Your task to perform on an android device: See recent photos Image 0: 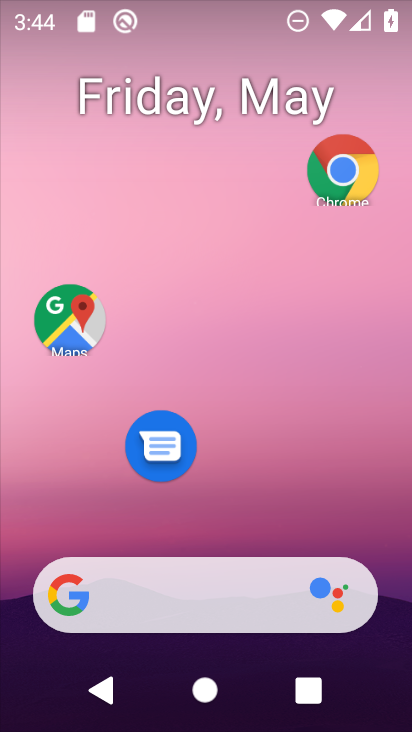
Step 0: click (335, 183)
Your task to perform on an android device: See recent photos Image 1: 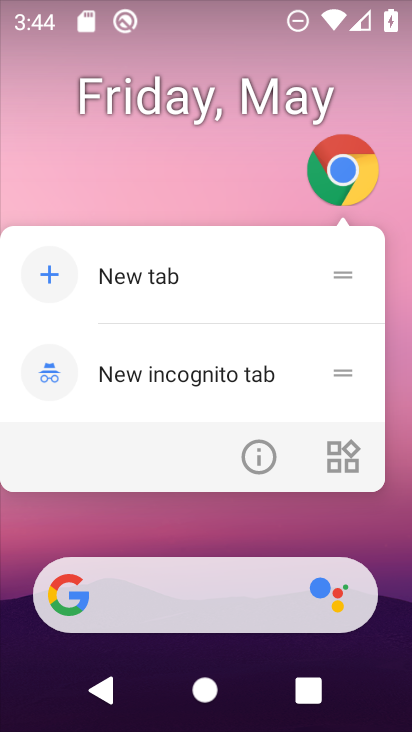
Step 1: click (227, 530)
Your task to perform on an android device: See recent photos Image 2: 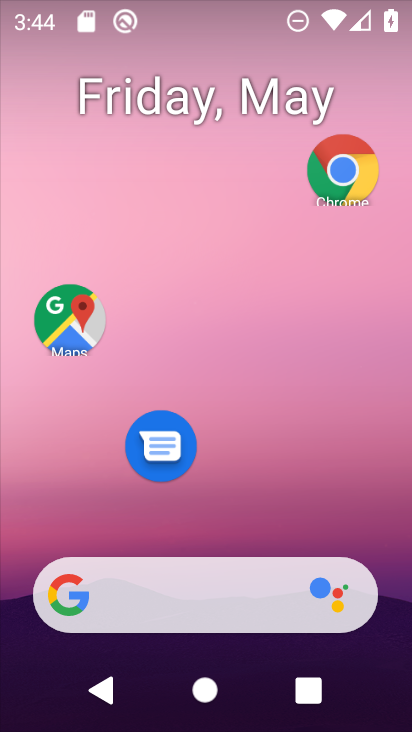
Step 2: drag from (227, 530) to (242, 144)
Your task to perform on an android device: See recent photos Image 3: 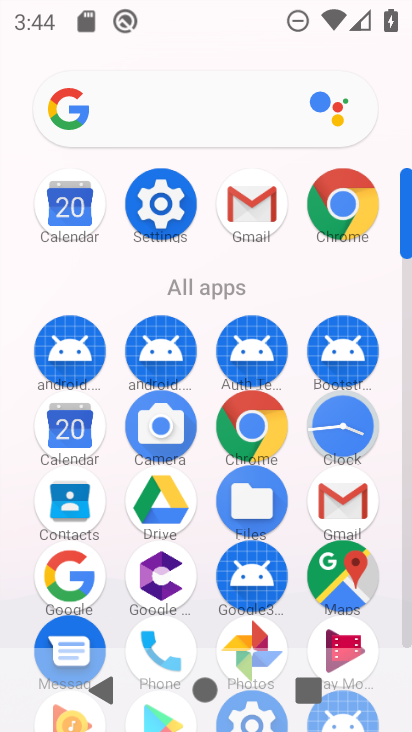
Step 3: click (263, 433)
Your task to perform on an android device: See recent photos Image 4: 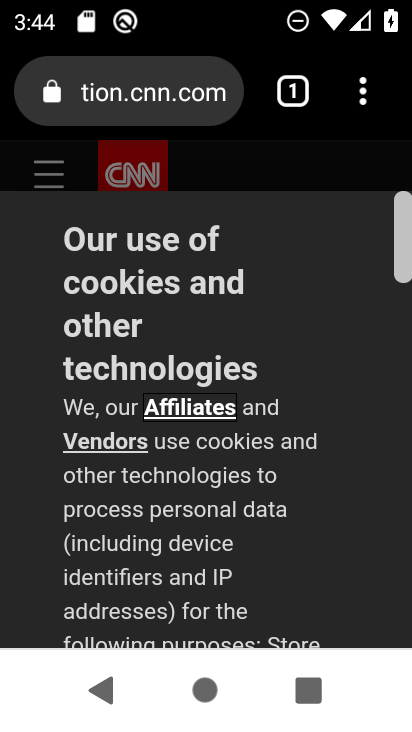
Step 4: press home button
Your task to perform on an android device: See recent photos Image 5: 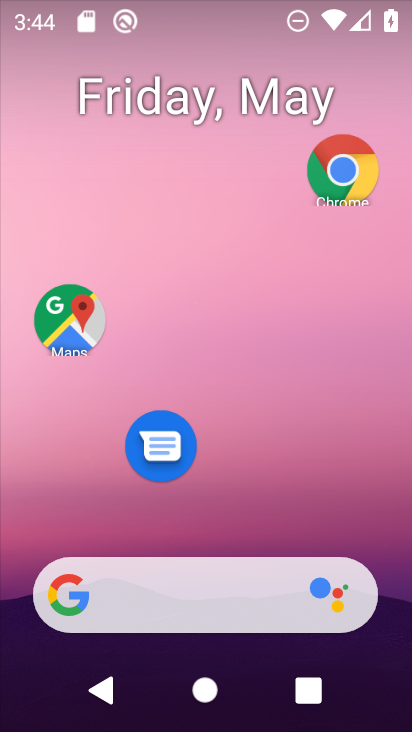
Step 5: drag from (285, 538) to (269, 61)
Your task to perform on an android device: See recent photos Image 6: 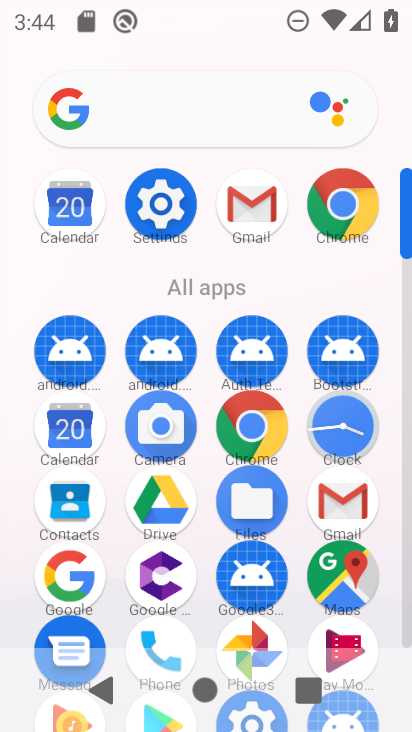
Step 6: drag from (289, 304) to (304, 41)
Your task to perform on an android device: See recent photos Image 7: 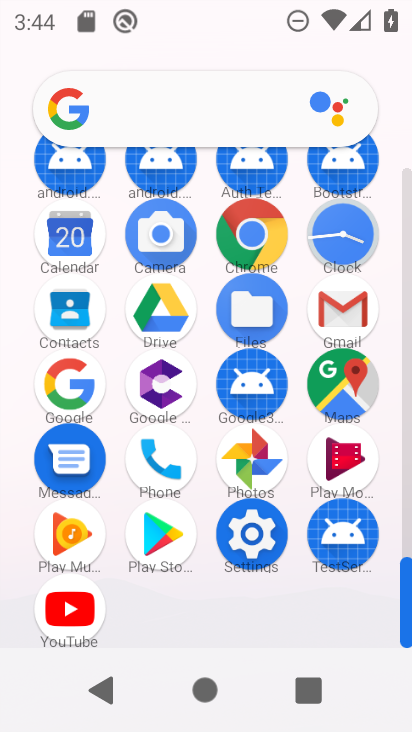
Step 7: click (258, 449)
Your task to perform on an android device: See recent photos Image 8: 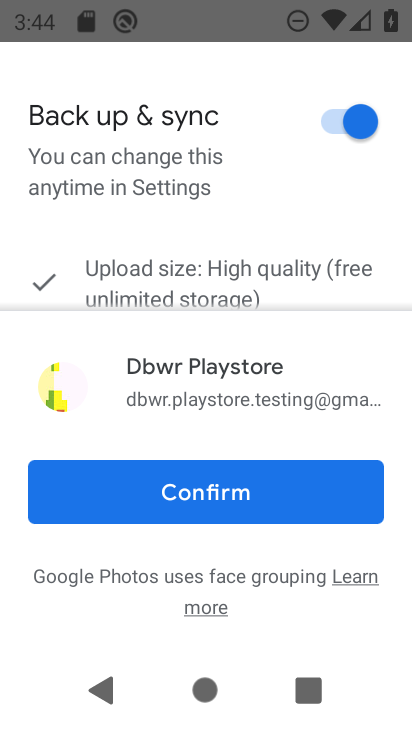
Step 8: click (280, 491)
Your task to perform on an android device: See recent photos Image 9: 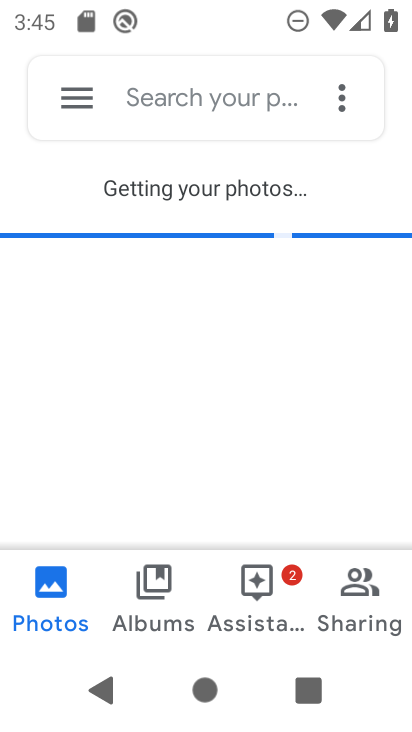
Step 9: click (45, 590)
Your task to perform on an android device: See recent photos Image 10: 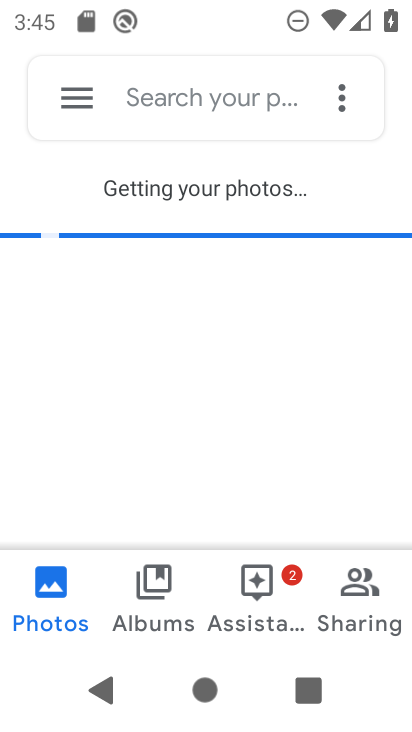
Step 10: task complete